Your task to perform on an android device: Show me popular videos on Youtube Image 0: 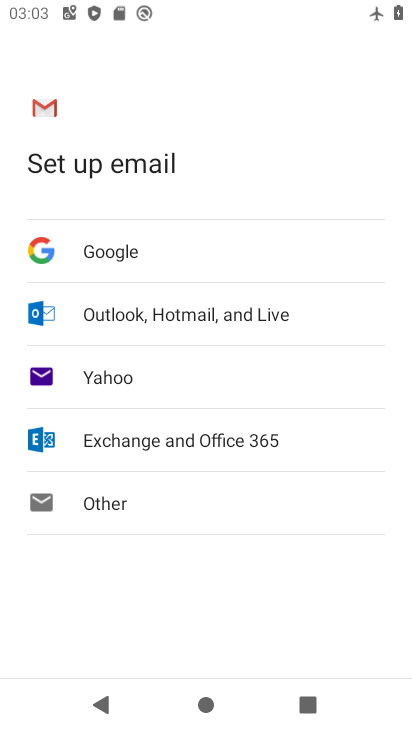
Step 0: press back button
Your task to perform on an android device: Show me popular videos on Youtube Image 1: 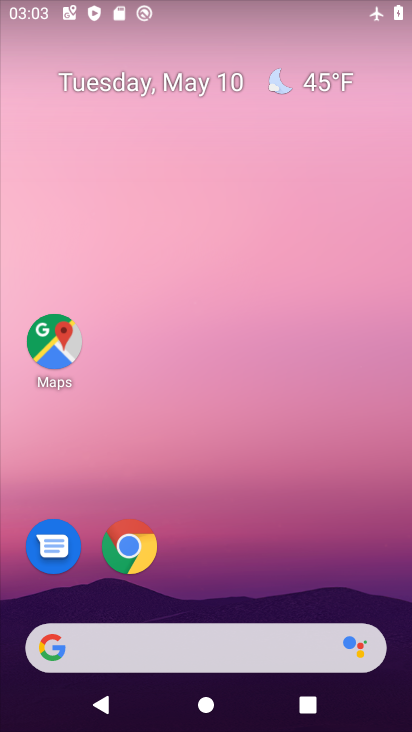
Step 1: drag from (257, 574) to (225, 3)
Your task to perform on an android device: Show me popular videos on Youtube Image 2: 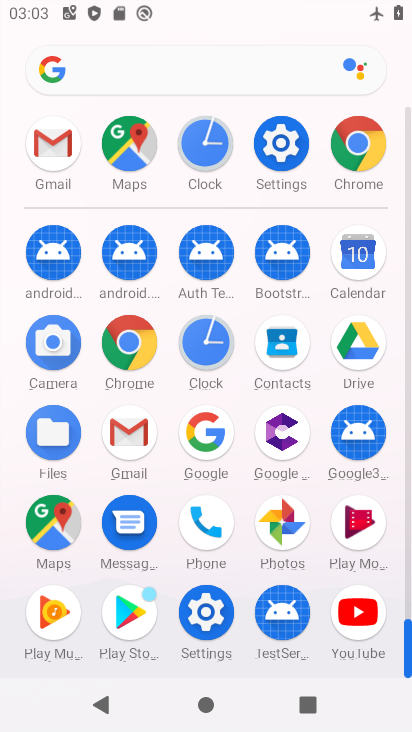
Step 2: click (354, 609)
Your task to perform on an android device: Show me popular videos on Youtube Image 3: 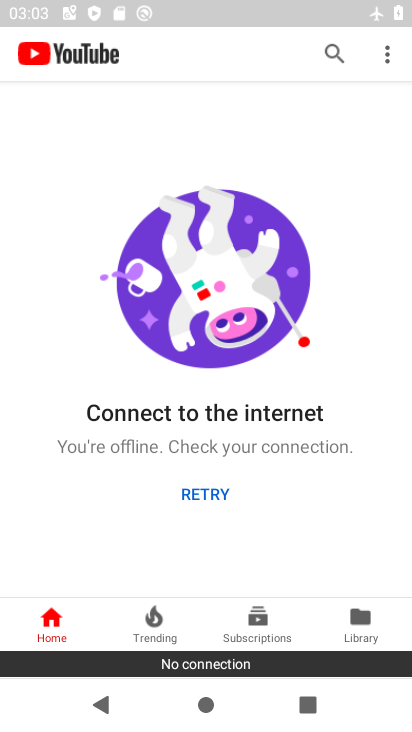
Step 3: click (50, 629)
Your task to perform on an android device: Show me popular videos on Youtube Image 4: 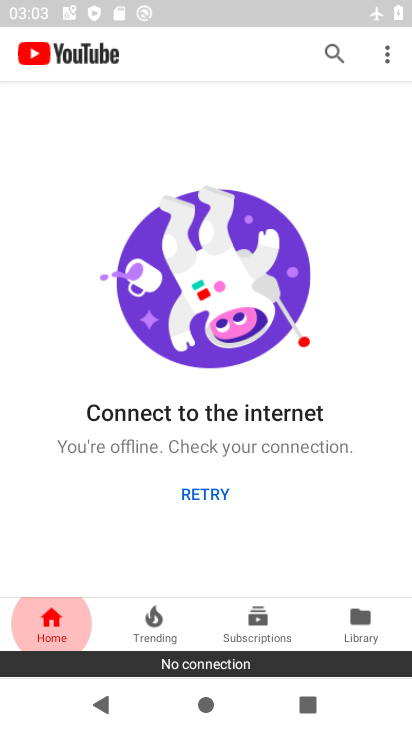
Step 4: click (50, 629)
Your task to perform on an android device: Show me popular videos on Youtube Image 5: 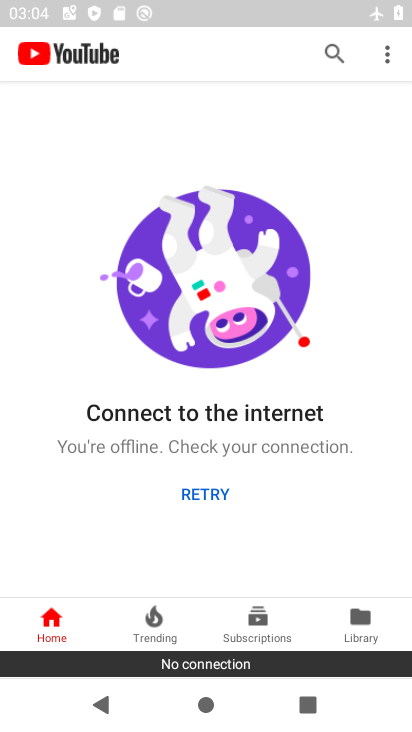
Step 5: task complete